Your task to perform on an android device: Go to display settings Image 0: 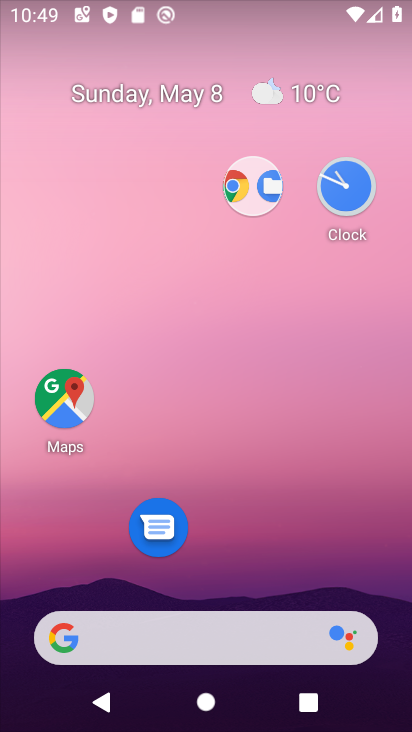
Step 0: drag from (277, 571) to (260, 38)
Your task to perform on an android device: Go to display settings Image 1: 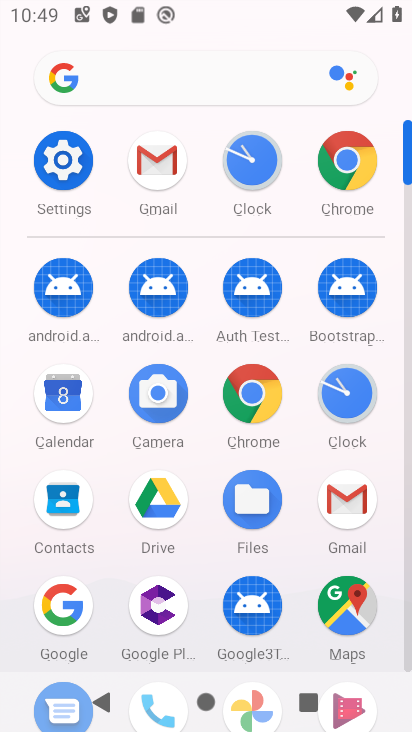
Step 1: click (74, 169)
Your task to perform on an android device: Go to display settings Image 2: 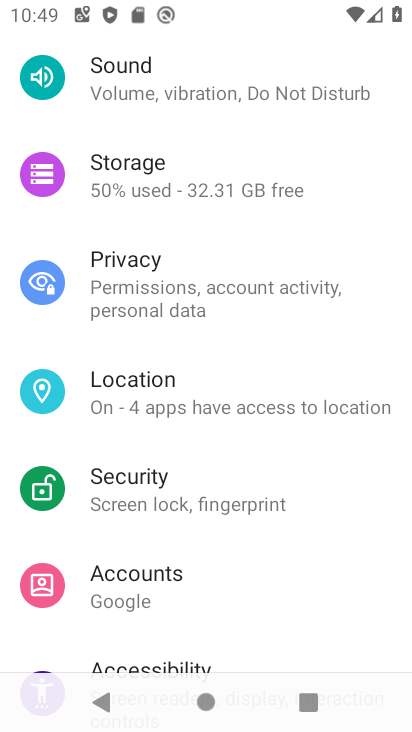
Step 2: click (252, 506)
Your task to perform on an android device: Go to display settings Image 3: 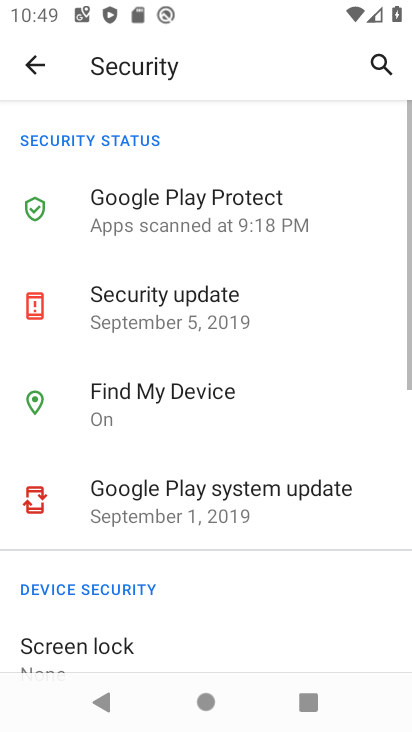
Step 3: click (36, 59)
Your task to perform on an android device: Go to display settings Image 4: 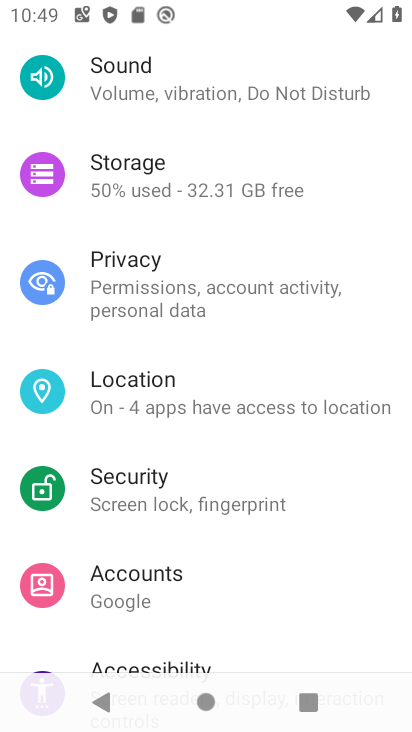
Step 4: drag from (304, 222) to (284, 588)
Your task to perform on an android device: Go to display settings Image 5: 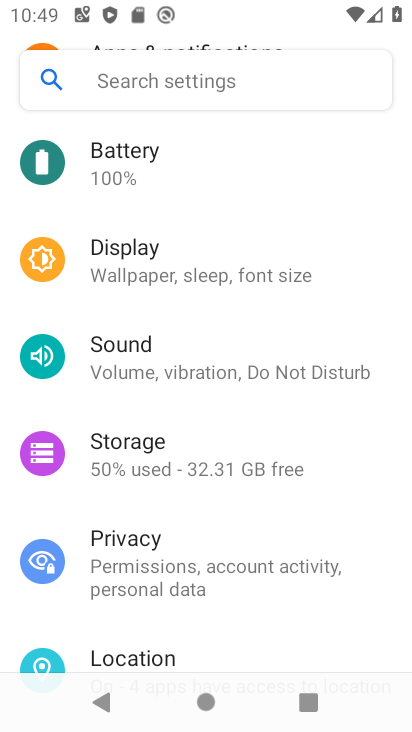
Step 5: click (195, 290)
Your task to perform on an android device: Go to display settings Image 6: 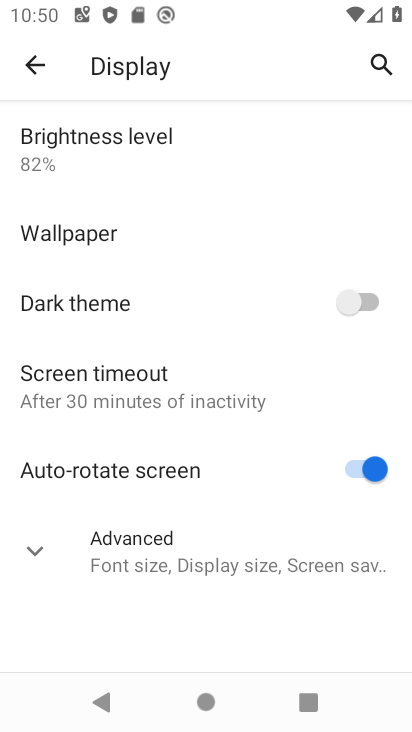
Step 6: task complete